Your task to perform on an android device: Open Google Maps and go to "Timeline" Image 0: 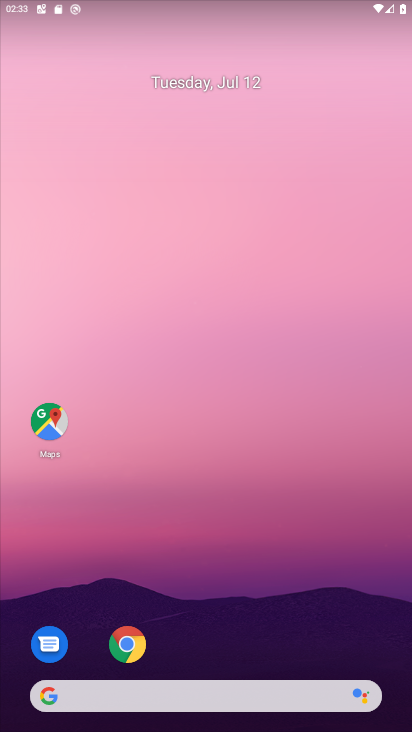
Step 0: drag from (203, 672) to (274, 0)
Your task to perform on an android device: Open Google Maps and go to "Timeline" Image 1: 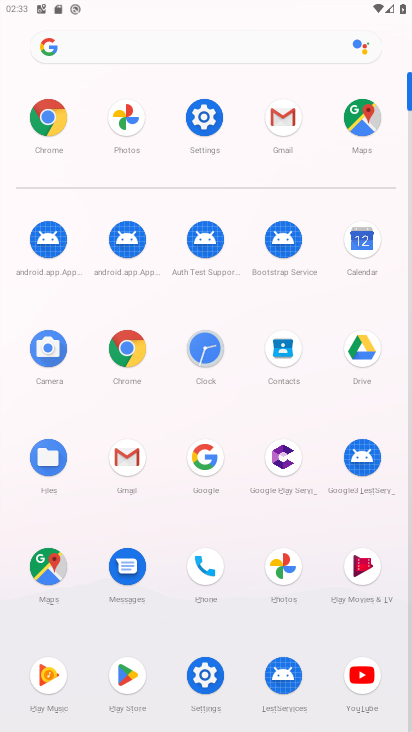
Step 1: click (36, 569)
Your task to perform on an android device: Open Google Maps and go to "Timeline" Image 2: 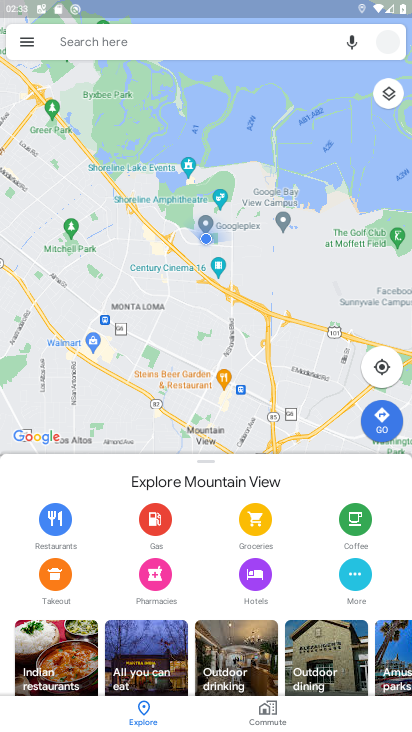
Step 2: click (25, 35)
Your task to perform on an android device: Open Google Maps and go to "Timeline" Image 3: 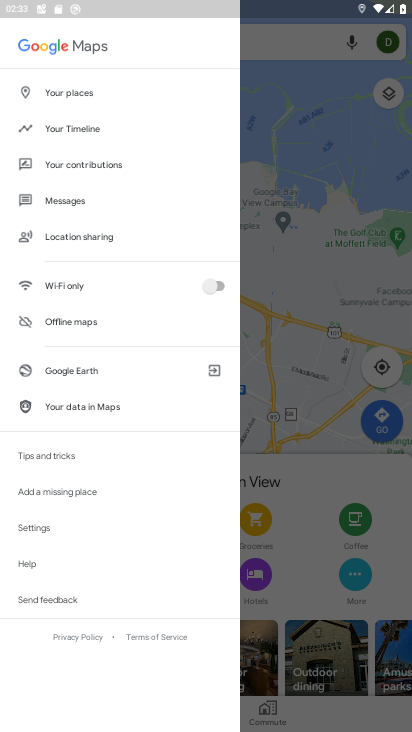
Step 3: click (65, 125)
Your task to perform on an android device: Open Google Maps and go to "Timeline" Image 4: 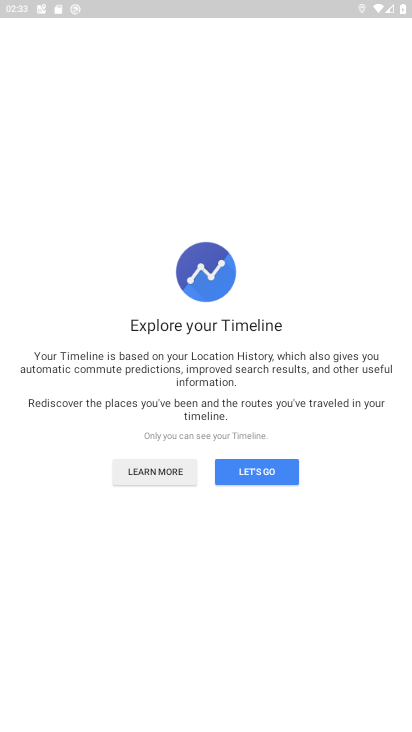
Step 4: click (251, 464)
Your task to perform on an android device: Open Google Maps and go to "Timeline" Image 5: 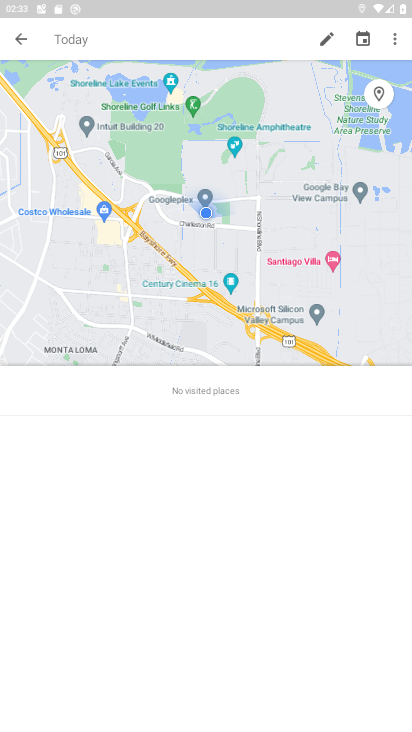
Step 5: task complete